Your task to perform on an android device: Open Chrome and go to the settings page Image 0: 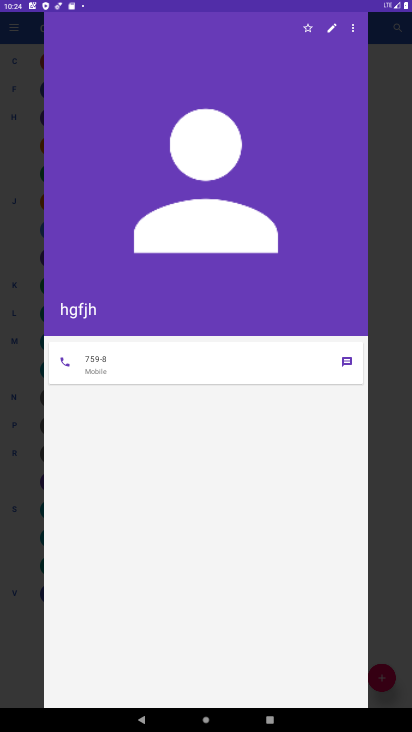
Step 0: press home button
Your task to perform on an android device: Open Chrome and go to the settings page Image 1: 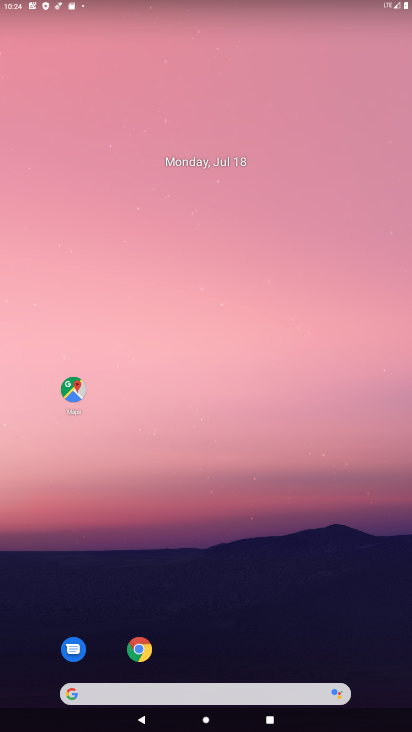
Step 1: click (137, 665)
Your task to perform on an android device: Open Chrome and go to the settings page Image 2: 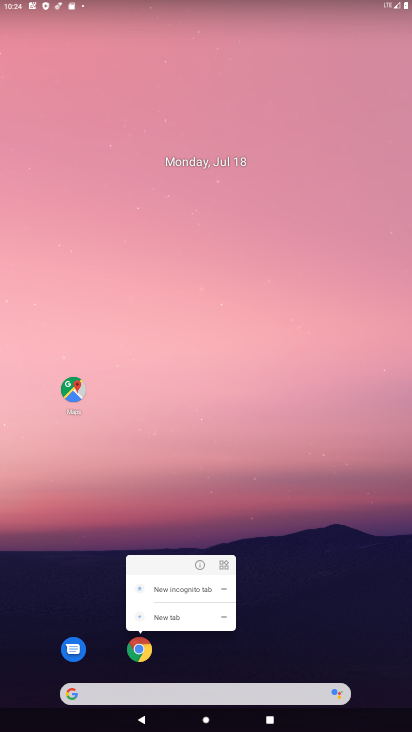
Step 2: click (137, 665)
Your task to perform on an android device: Open Chrome and go to the settings page Image 3: 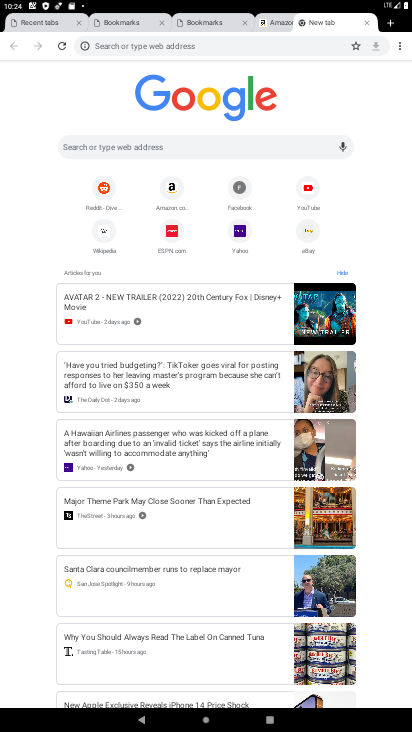
Step 3: click (398, 41)
Your task to perform on an android device: Open Chrome and go to the settings page Image 4: 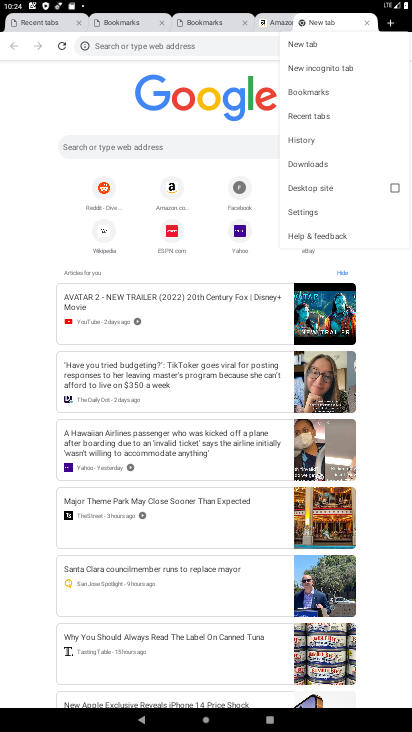
Step 4: click (336, 214)
Your task to perform on an android device: Open Chrome and go to the settings page Image 5: 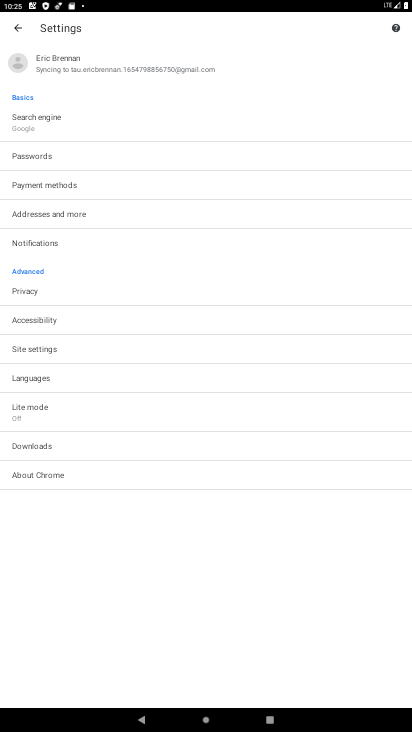
Step 5: task complete